Your task to perform on an android device: Go to ESPN.com Image 0: 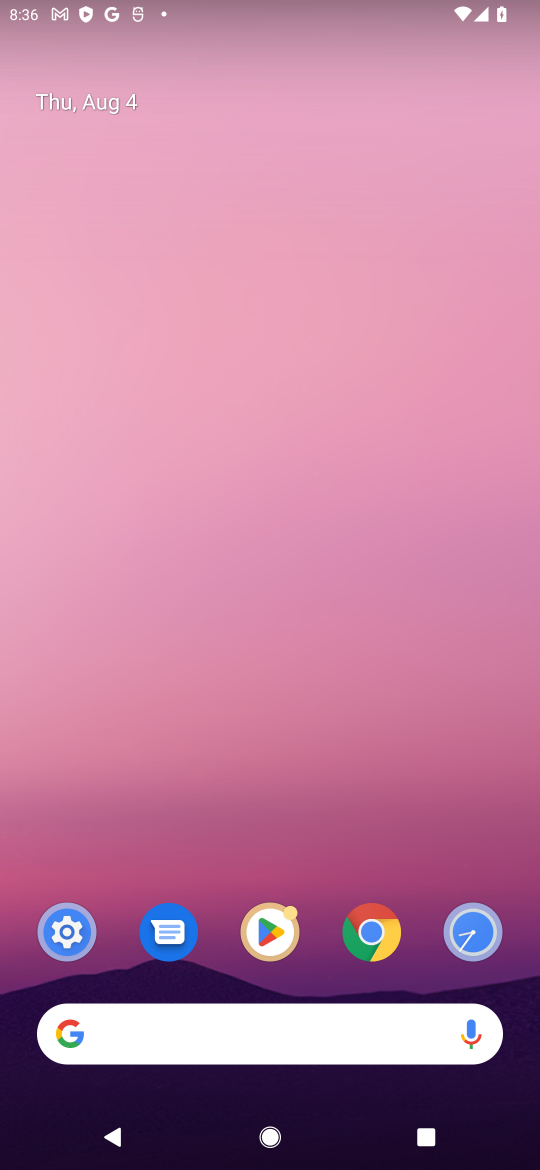
Step 0: click (368, 938)
Your task to perform on an android device: Go to ESPN.com Image 1: 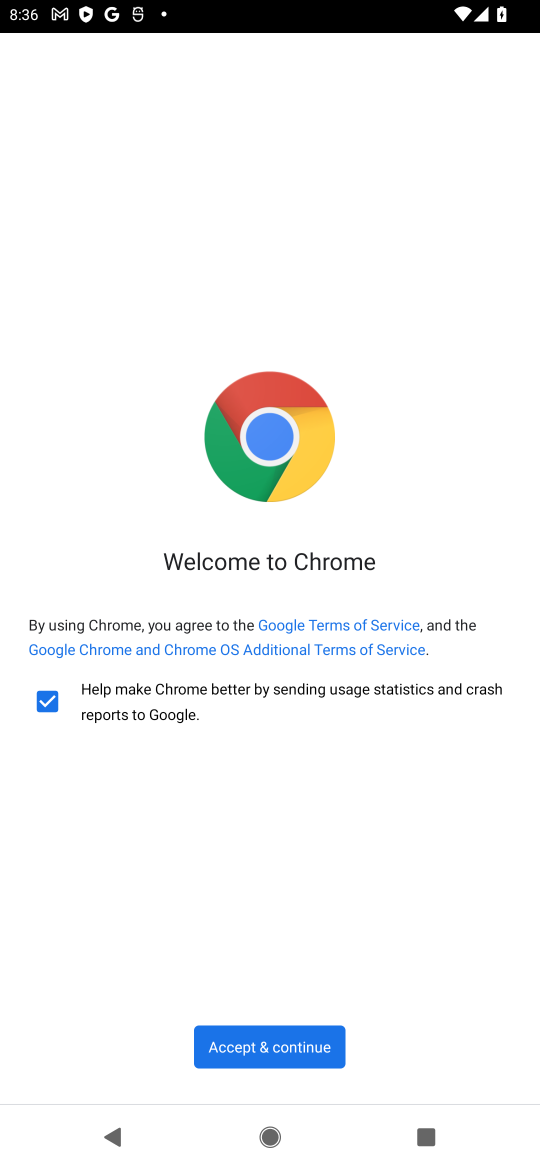
Step 1: click (291, 1053)
Your task to perform on an android device: Go to ESPN.com Image 2: 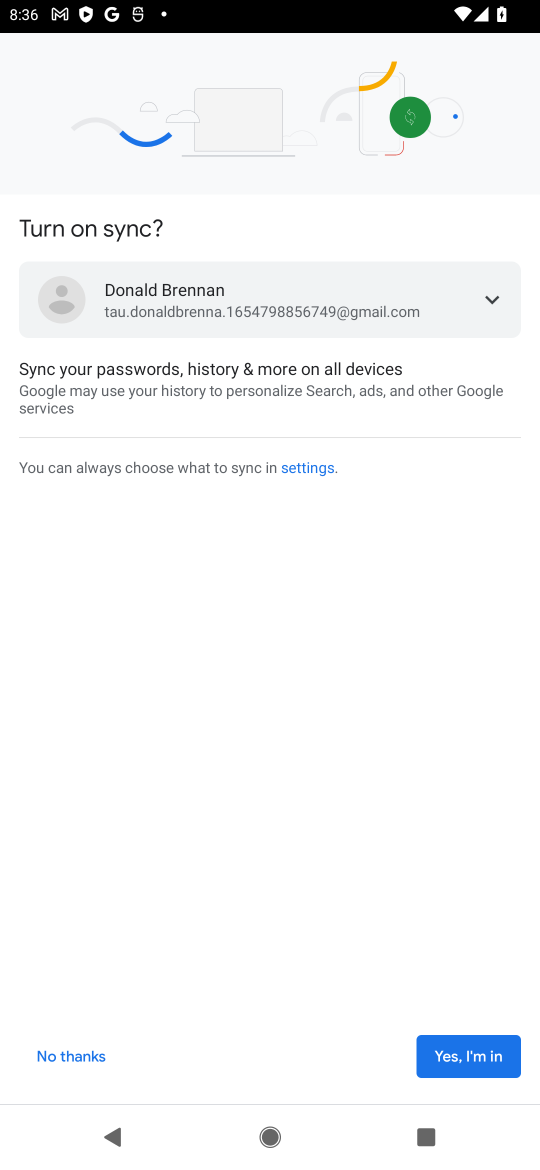
Step 2: click (433, 1059)
Your task to perform on an android device: Go to ESPN.com Image 3: 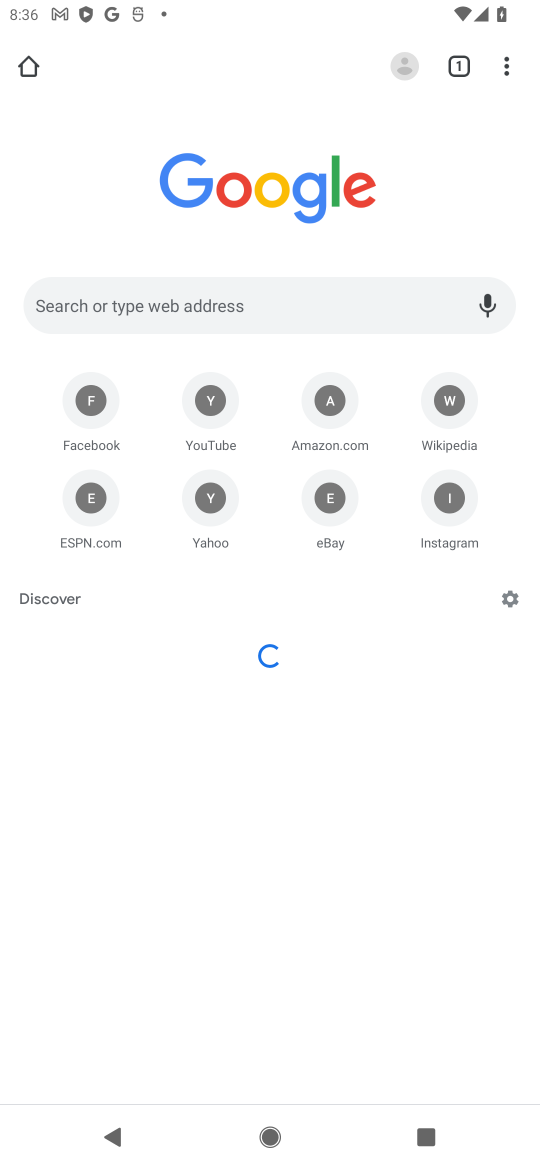
Step 3: click (433, 1059)
Your task to perform on an android device: Go to ESPN.com Image 4: 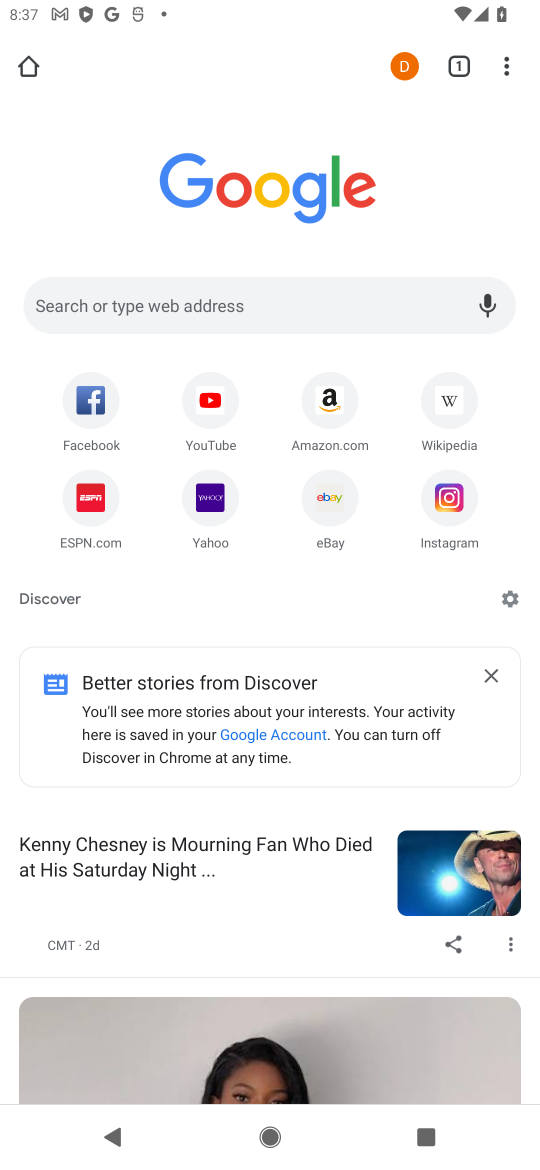
Step 4: click (76, 533)
Your task to perform on an android device: Go to ESPN.com Image 5: 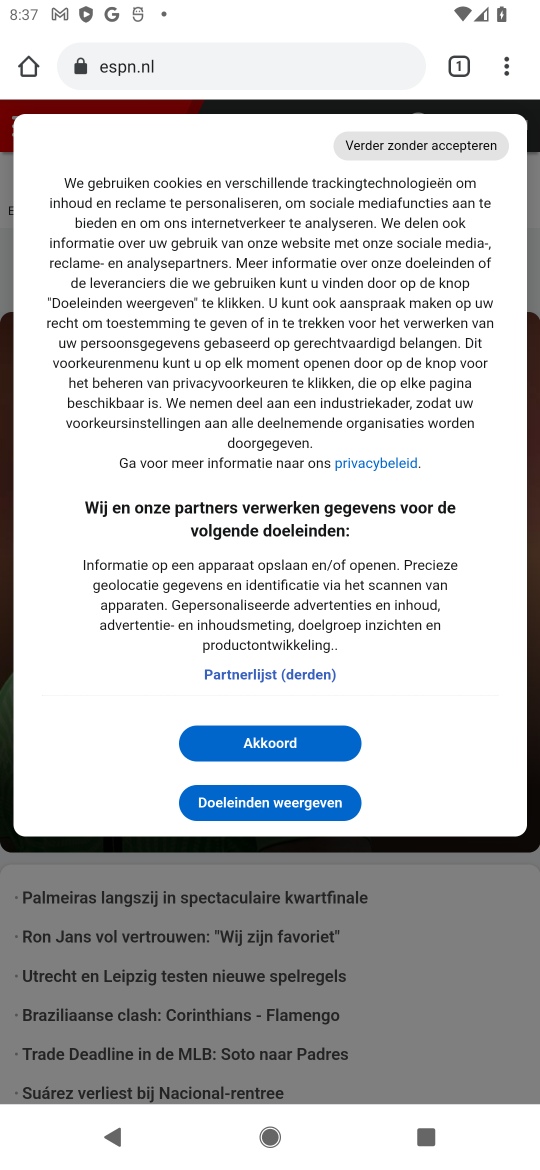
Step 5: task complete